Your task to perform on an android device: check battery use Image 0: 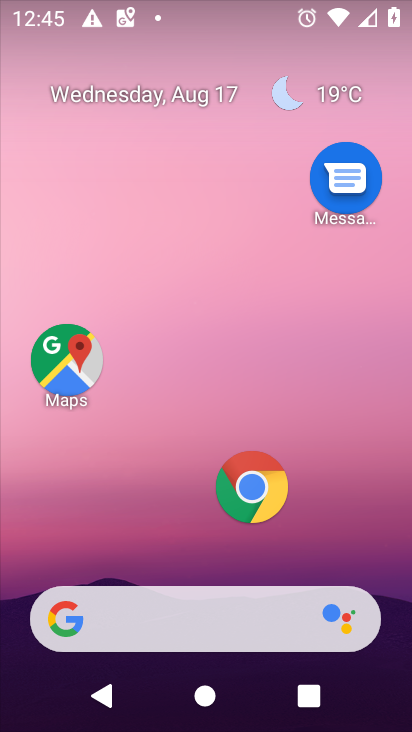
Step 0: drag from (118, 466) to (221, 68)
Your task to perform on an android device: check battery use Image 1: 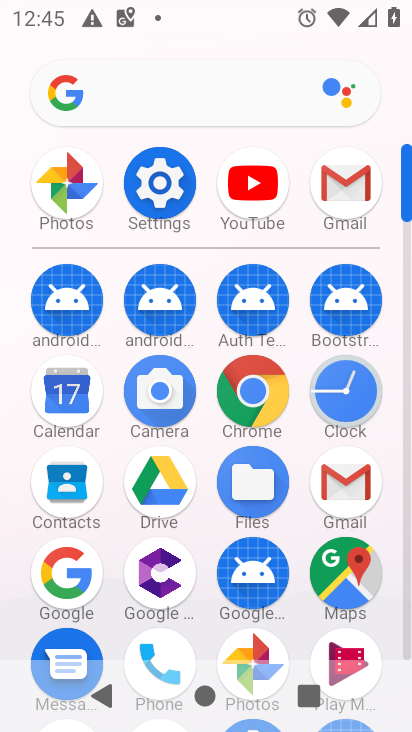
Step 1: click (144, 201)
Your task to perform on an android device: check battery use Image 2: 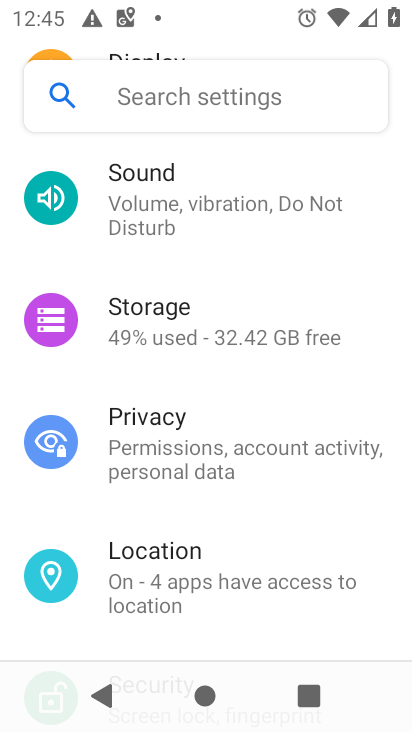
Step 2: drag from (240, 191) to (226, 610)
Your task to perform on an android device: check battery use Image 3: 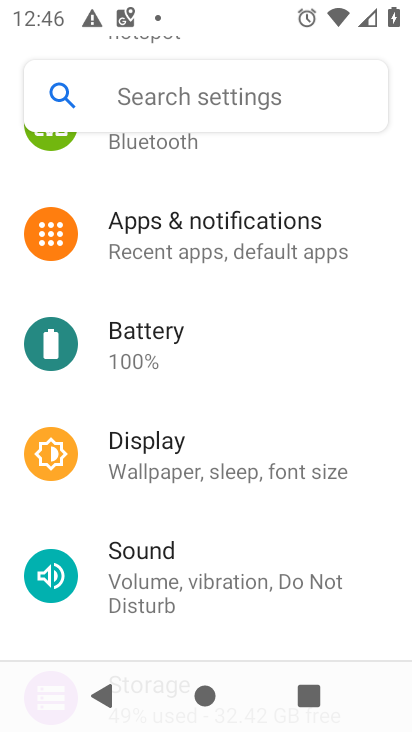
Step 3: click (131, 360)
Your task to perform on an android device: check battery use Image 4: 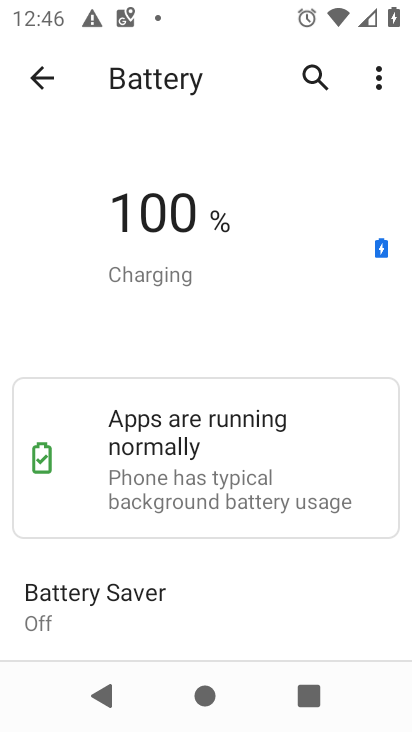
Step 4: click (373, 72)
Your task to perform on an android device: check battery use Image 5: 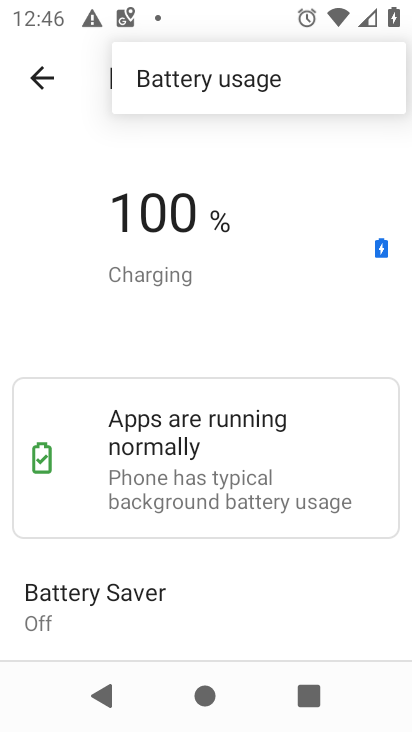
Step 5: click (274, 86)
Your task to perform on an android device: check battery use Image 6: 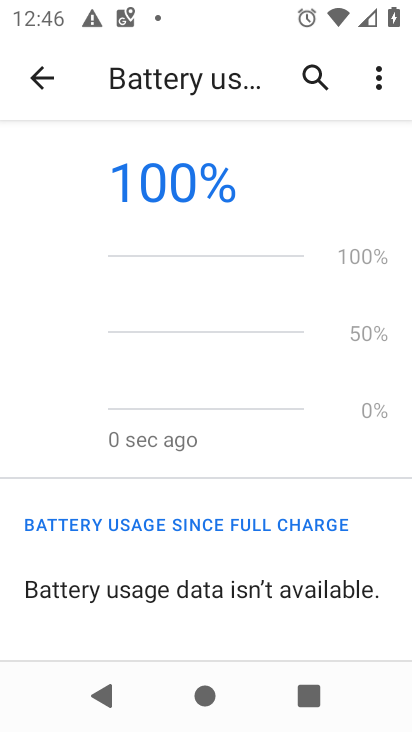
Step 6: task complete